Your task to perform on an android device: Open calendar and show me the third week of next month Image 0: 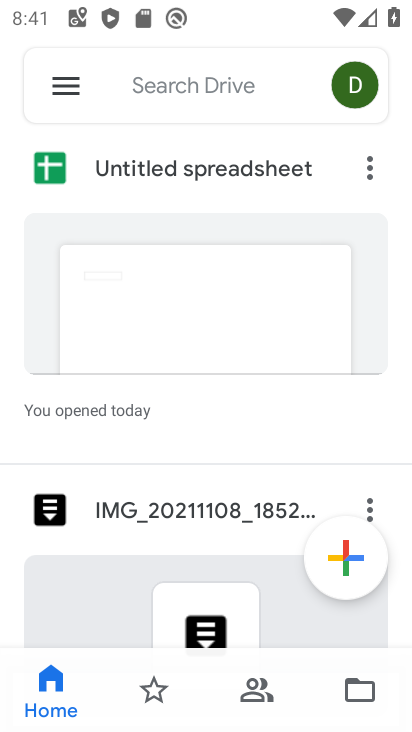
Step 0: press home button
Your task to perform on an android device: Open calendar and show me the third week of next month Image 1: 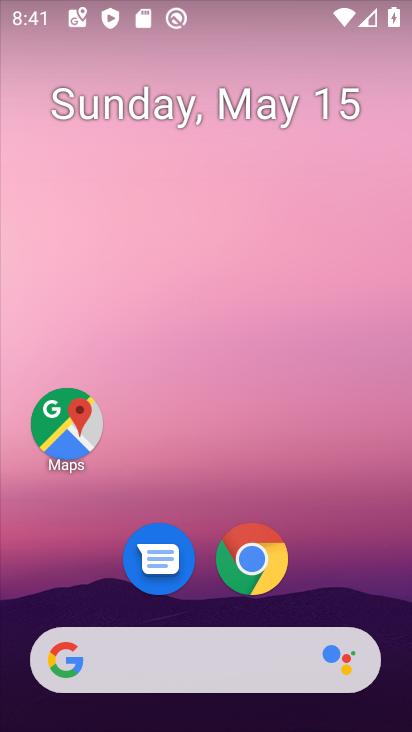
Step 1: drag from (351, 588) to (363, 123)
Your task to perform on an android device: Open calendar and show me the third week of next month Image 2: 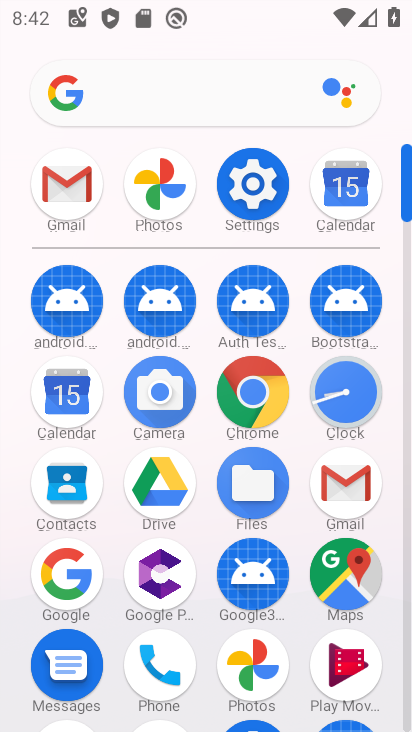
Step 2: click (68, 416)
Your task to perform on an android device: Open calendar and show me the third week of next month Image 3: 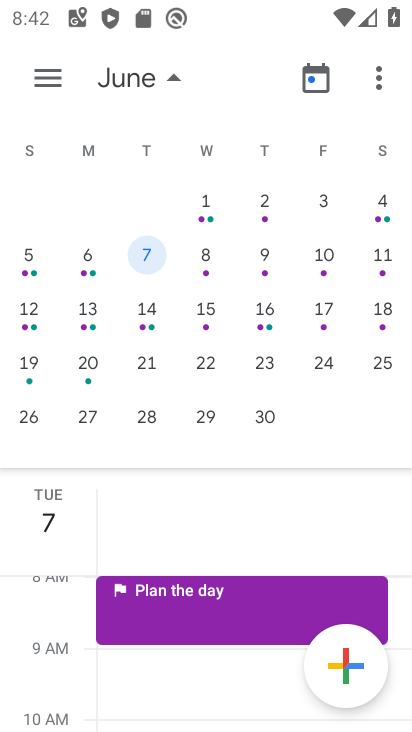
Step 3: click (210, 353)
Your task to perform on an android device: Open calendar and show me the third week of next month Image 4: 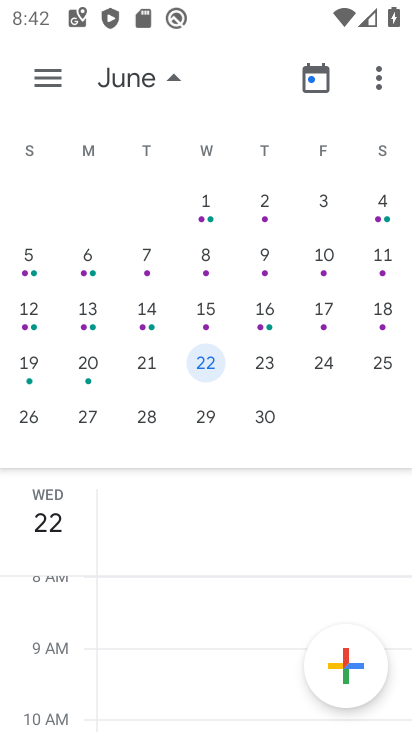
Step 4: task complete